Your task to perform on an android device: open app "Chime – Mobile Banking" (install if not already installed) Image 0: 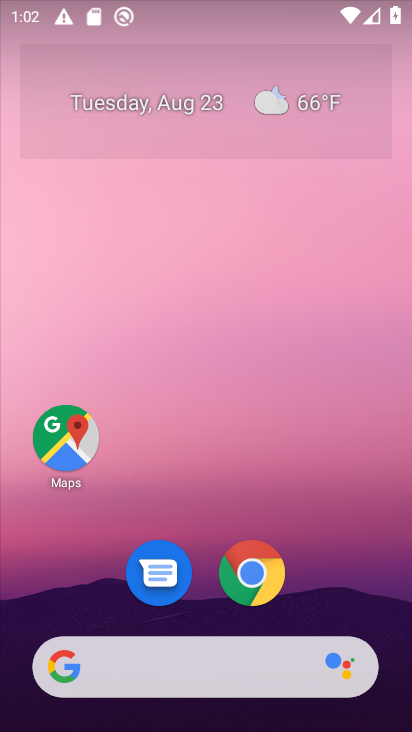
Step 0: drag from (212, 513) to (226, 79)
Your task to perform on an android device: open app "Chime – Mobile Banking" (install if not already installed) Image 1: 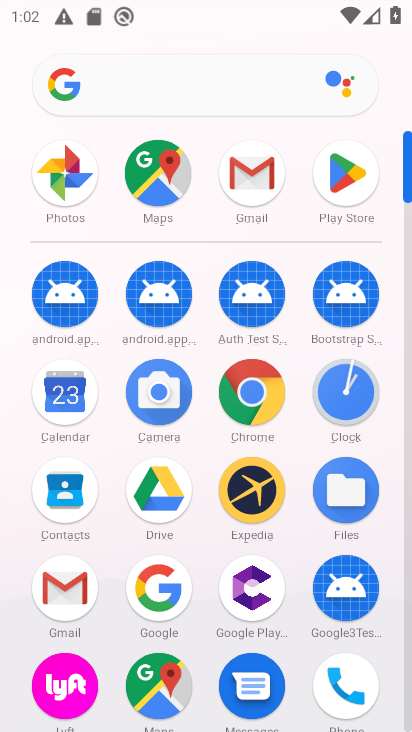
Step 1: click (344, 175)
Your task to perform on an android device: open app "Chime – Mobile Banking" (install if not already installed) Image 2: 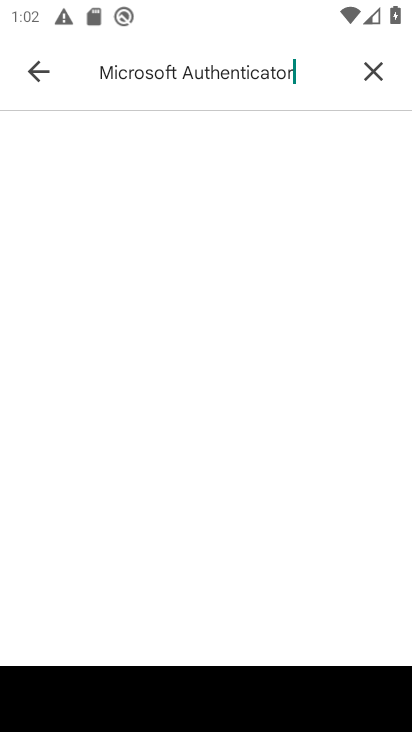
Step 2: click (365, 61)
Your task to perform on an android device: open app "Chime – Mobile Banking" (install if not already installed) Image 3: 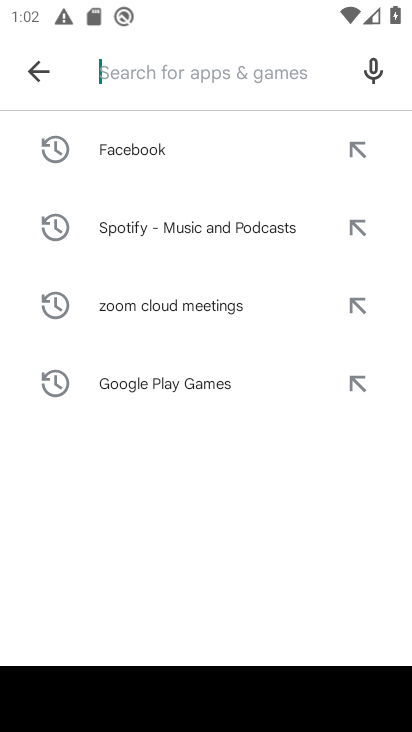
Step 3: type "Chime"
Your task to perform on an android device: open app "Chime – Mobile Banking" (install if not already installed) Image 4: 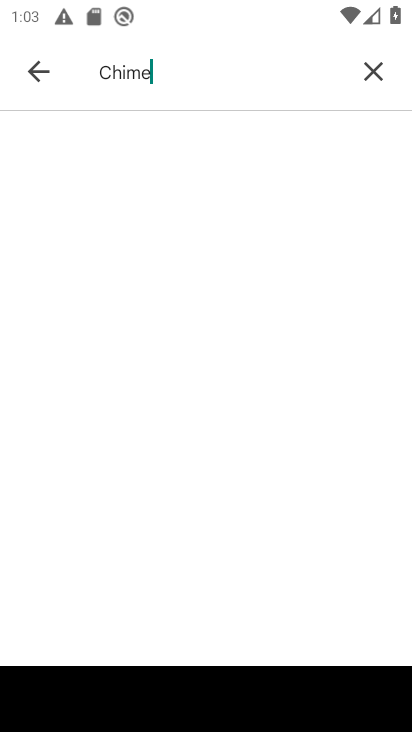
Step 4: task complete